Your task to perform on an android device: star an email in the gmail app Image 0: 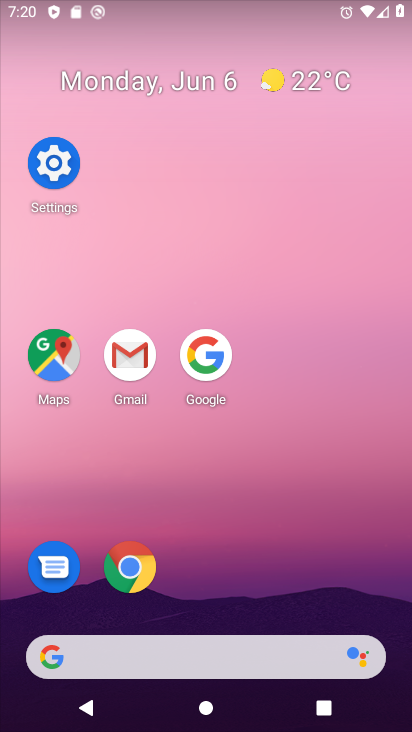
Step 0: click (144, 361)
Your task to perform on an android device: star an email in the gmail app Image 1: 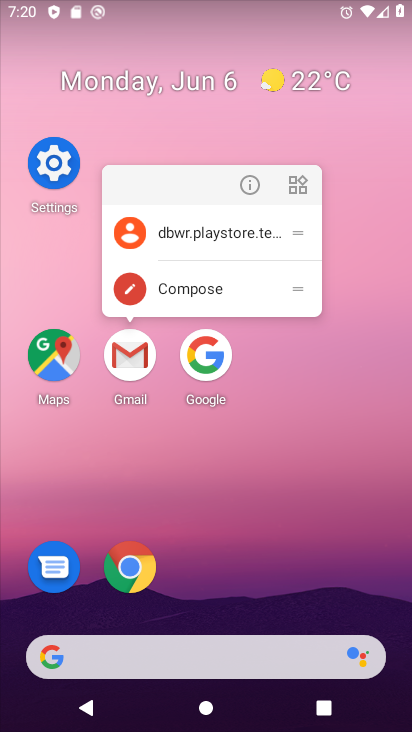
Step 1: click (128, 342)
Your task to perform on an android device: star an email in the gmail app Image 2: 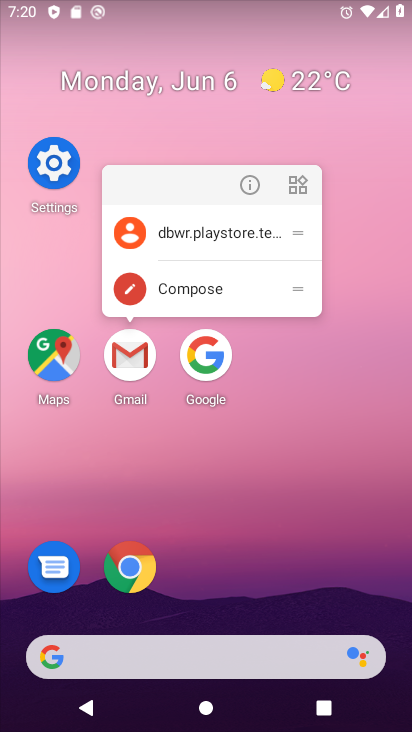
Step 2: click (142, 358)
Your task to perform on an android device: star an email in the gmail app Image 3: 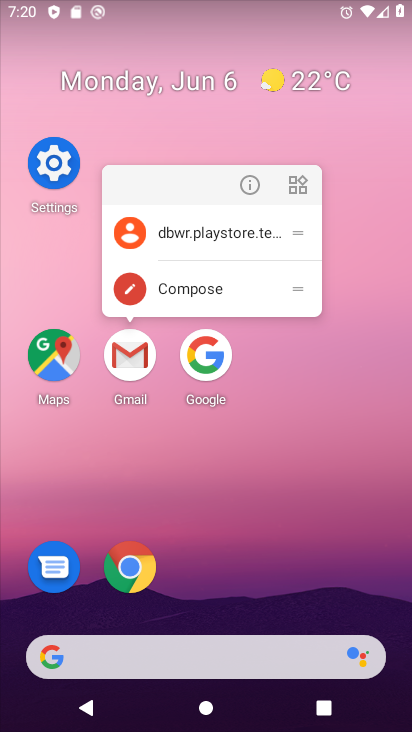
Step 3: click (134, 364)
Your task to perform on an android device: star an email in the gmail app Image 4: 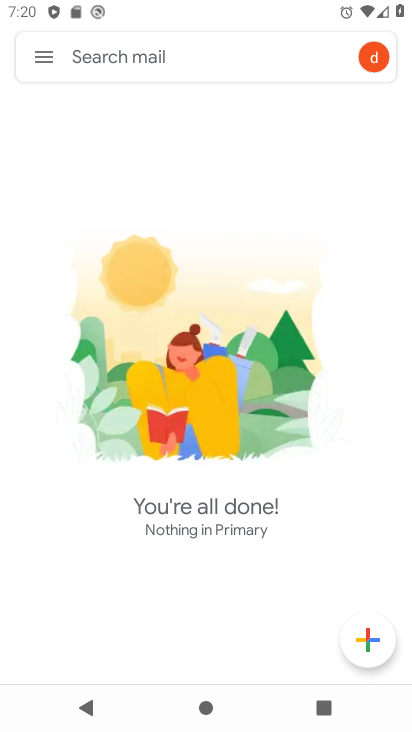
Step 4: click (49, 68)
Your task to perform on an android device: star an email in the gmail app Image 5: 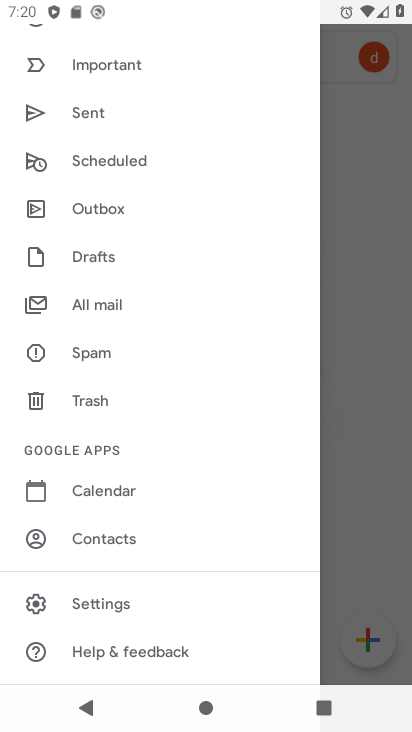
Step 5: click (154, 304)
Your task to perform on an android device: star an email in the gmail app Image 6: 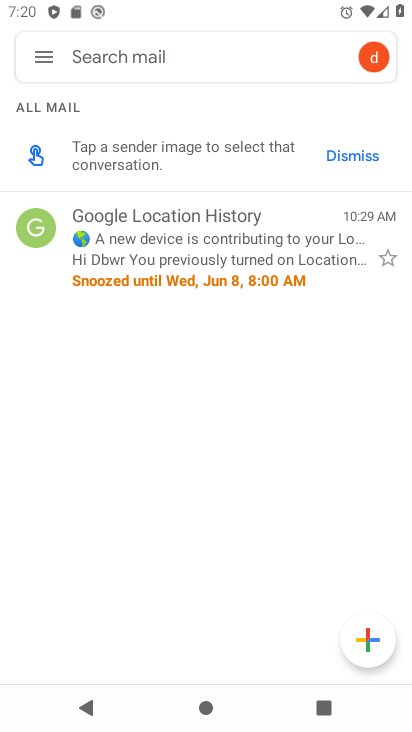
Step 6: task complete